Your task to perform on an android device: How do I get to the nearest Lowe's? Image 0: 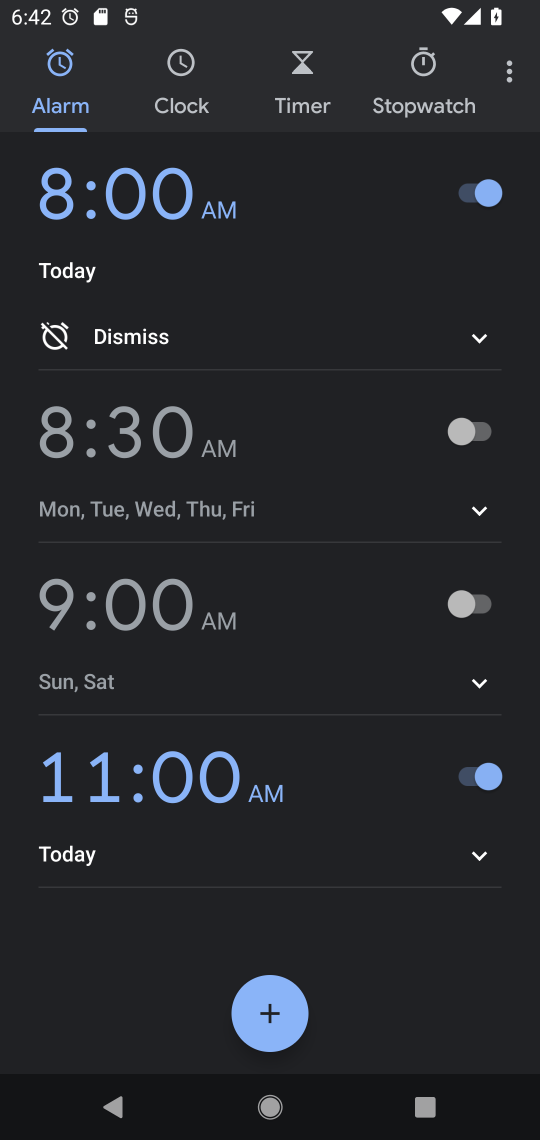
Step 0: press home button
Your task to perform on an android device: How do I get to the nearest Lowe's? Image 1: 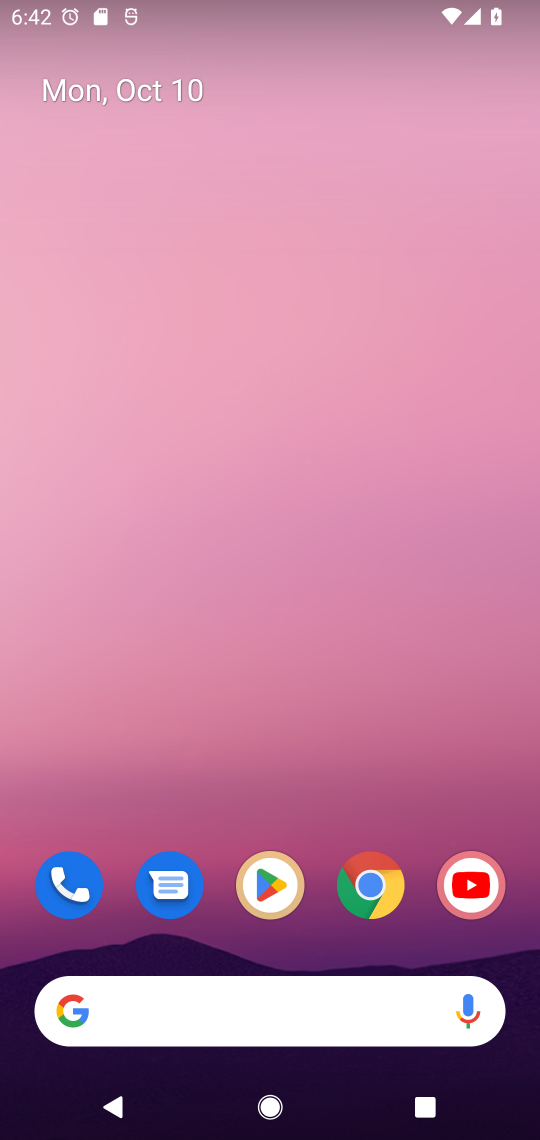
Step 1: click (372, 888)
Your task to perform on an android device: How do I get to the nearest Lowe's? Image 2: 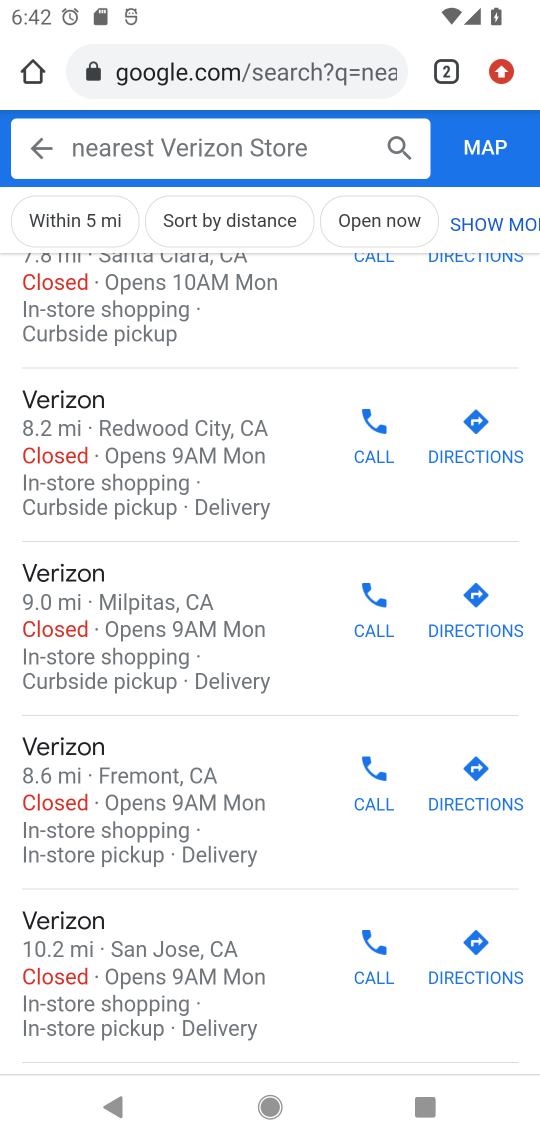
Step 2: click (329, 57)
Your task to perform on an android device: How do I get to the nearest Lowe's? Image 3: 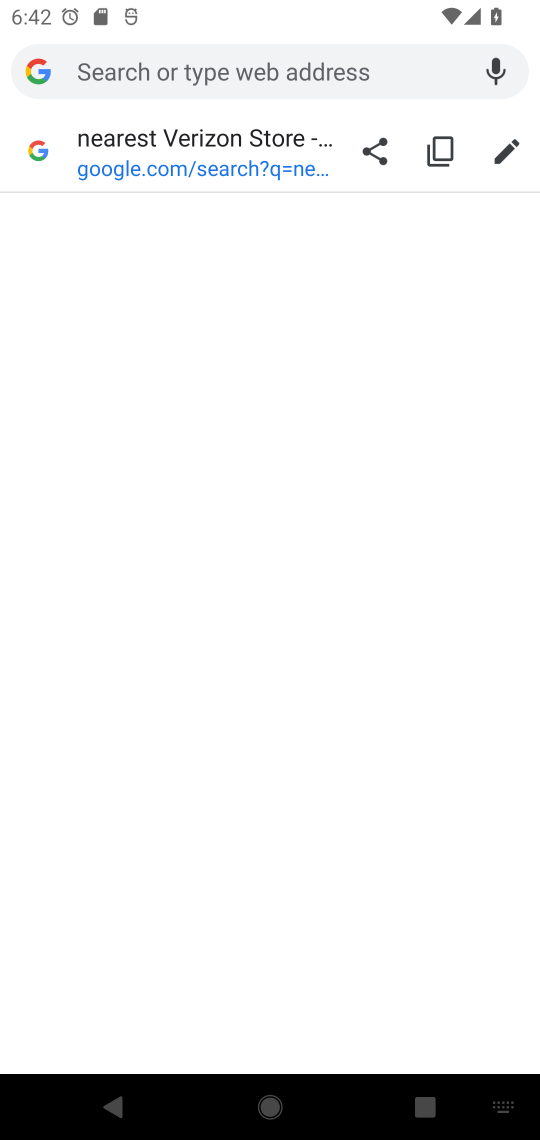
Step 3: type "nearest Lowe's"
Your task to perform on an android device: How do I get to the nearest Lowe's? Image 4: 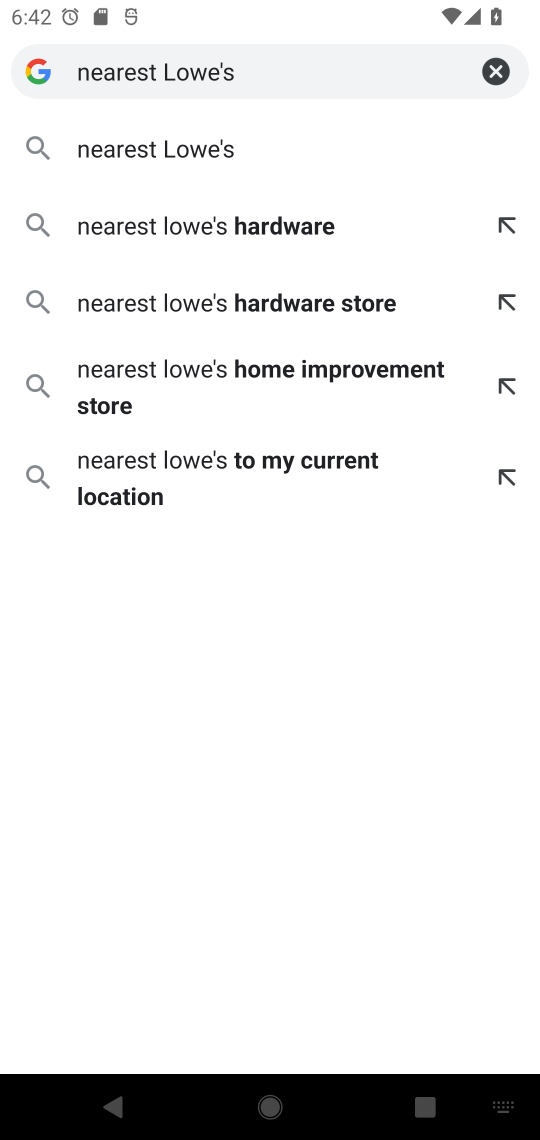
Step 4: click (213, 139)
Your task to perform on an android device: How do I get to the nearest Lowe's? Image 5: 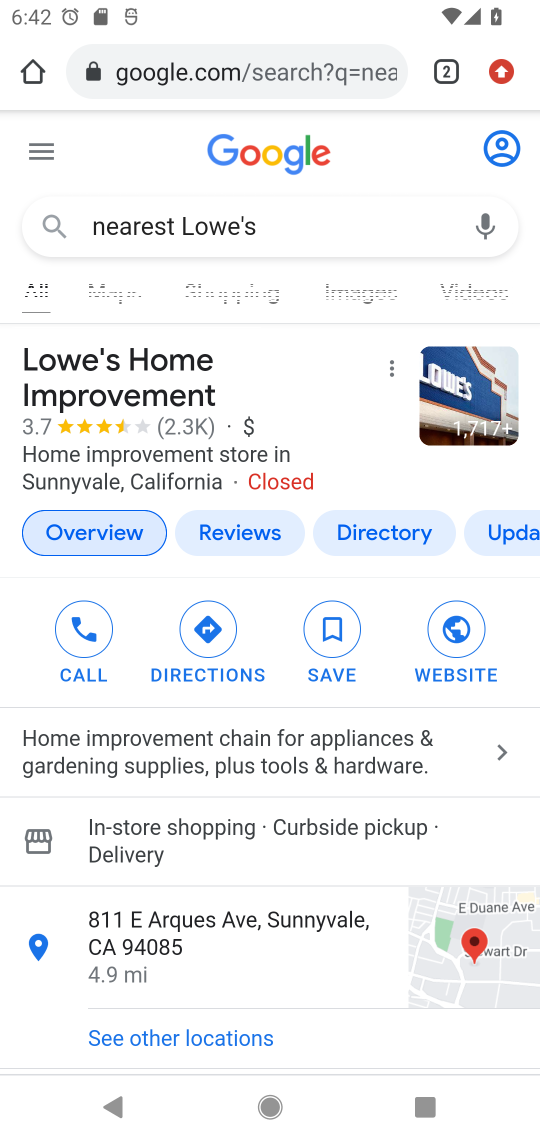
Step 5: task complete